Your task to perform on an android device: Open Amazon Image 0: 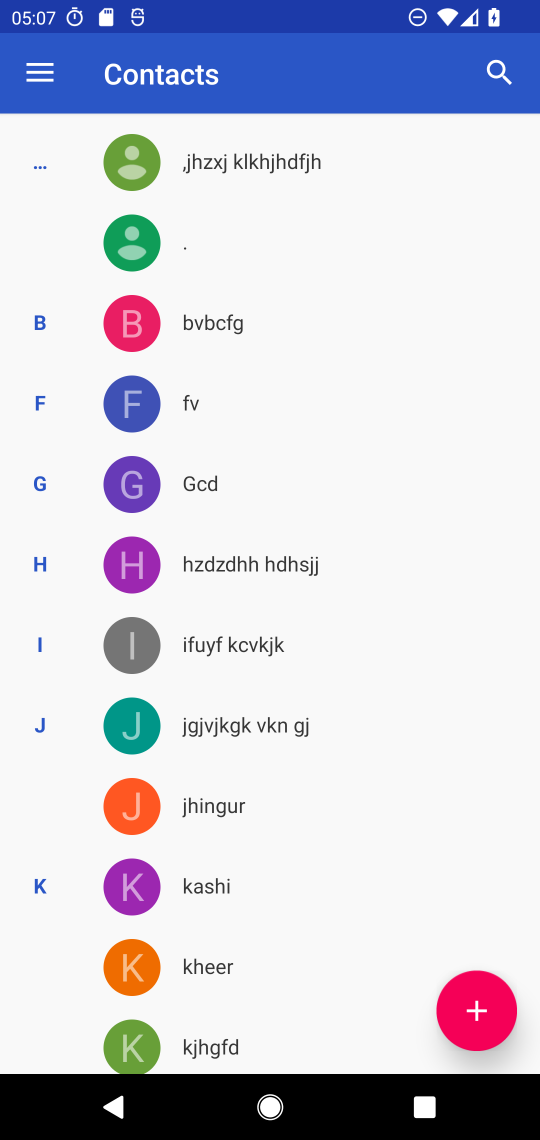
Step 0: press home button
Your task to perform on an android device: Open Amazon Image 1: 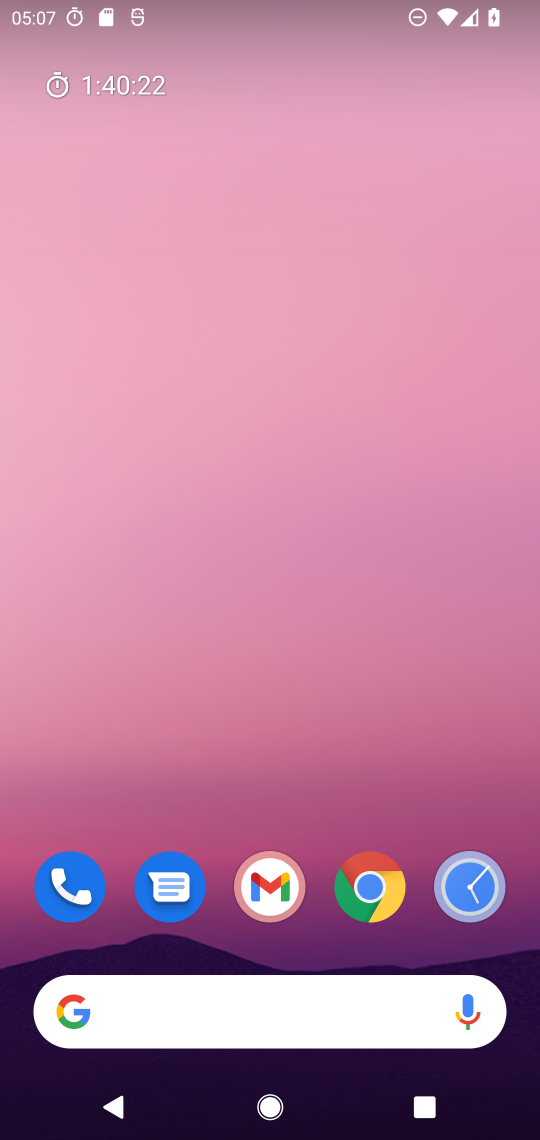
Step 1: drag from (415, 804) to (414, 250)
Your task to perform on an android device: Open Amazon Image 2: 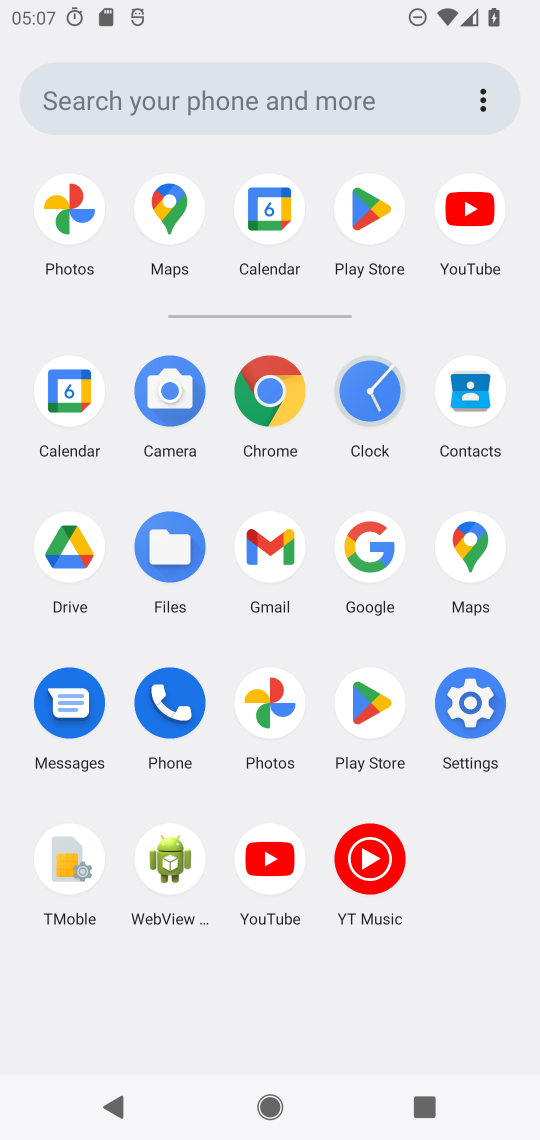
Step 2: click (263, 407)
Your task to perform on an android device: Open Amazon Image 3: 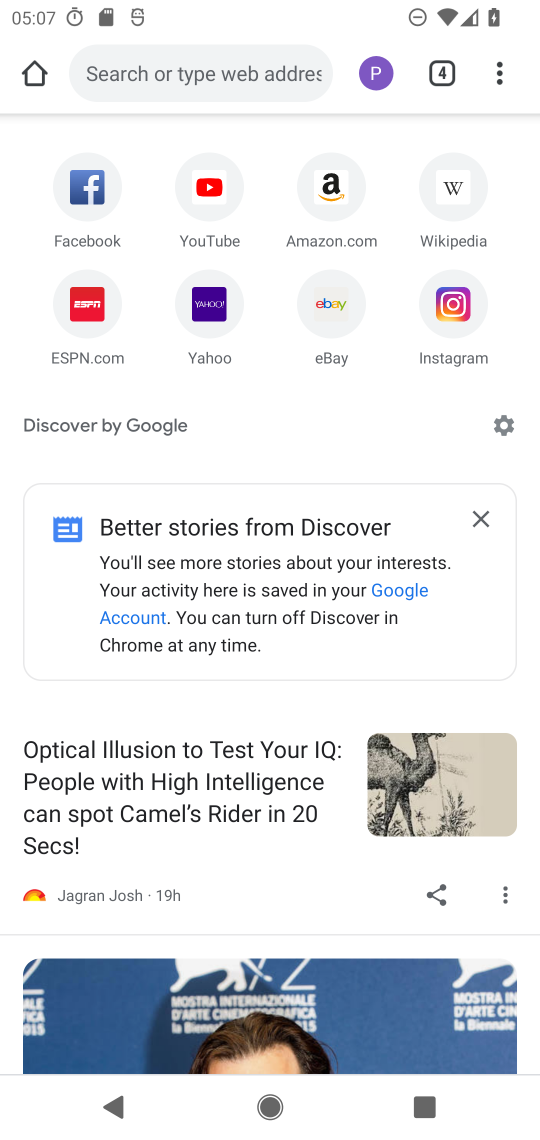
Step 3: click (247, 71)
Your task to perform on an android device: Open Amazon Image 4: 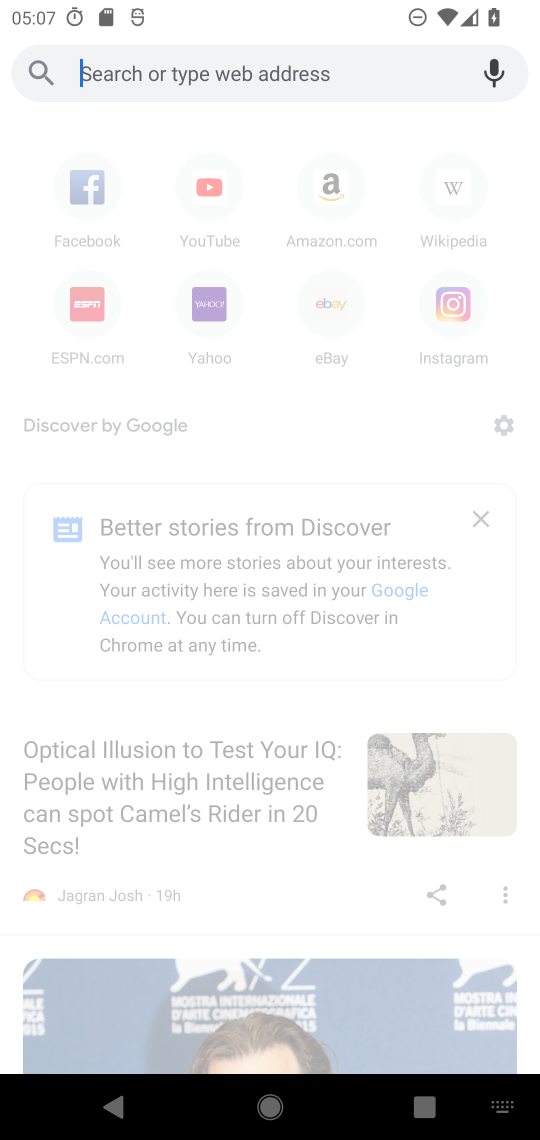
Step 4: type "amazon"
Your task to perform on an android device: Open Amazon Image 5: 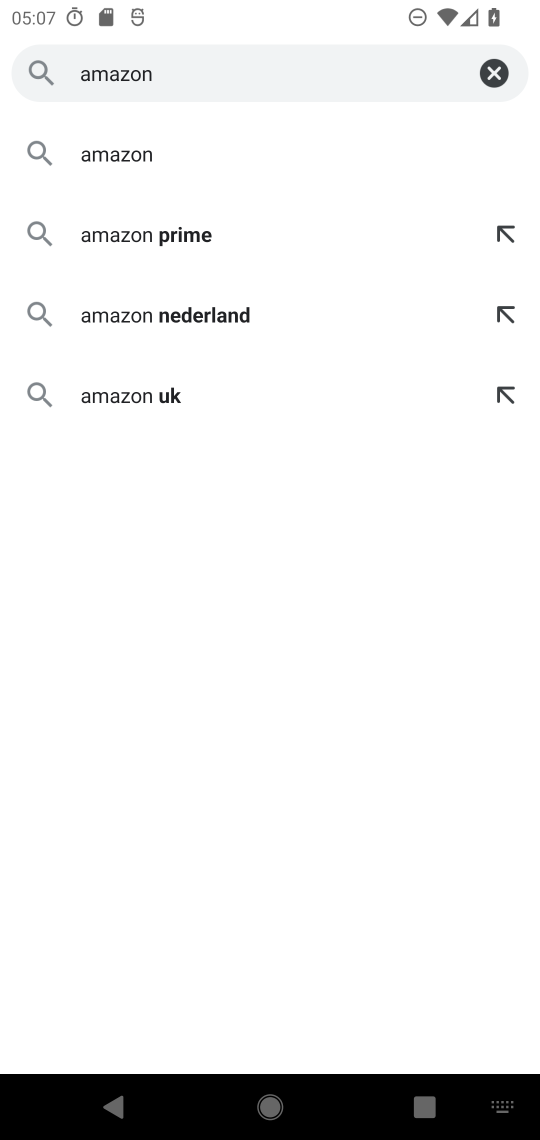
Step 5: click (203, 151)
Your task to perform on an android device: Open Amazon Image 6: 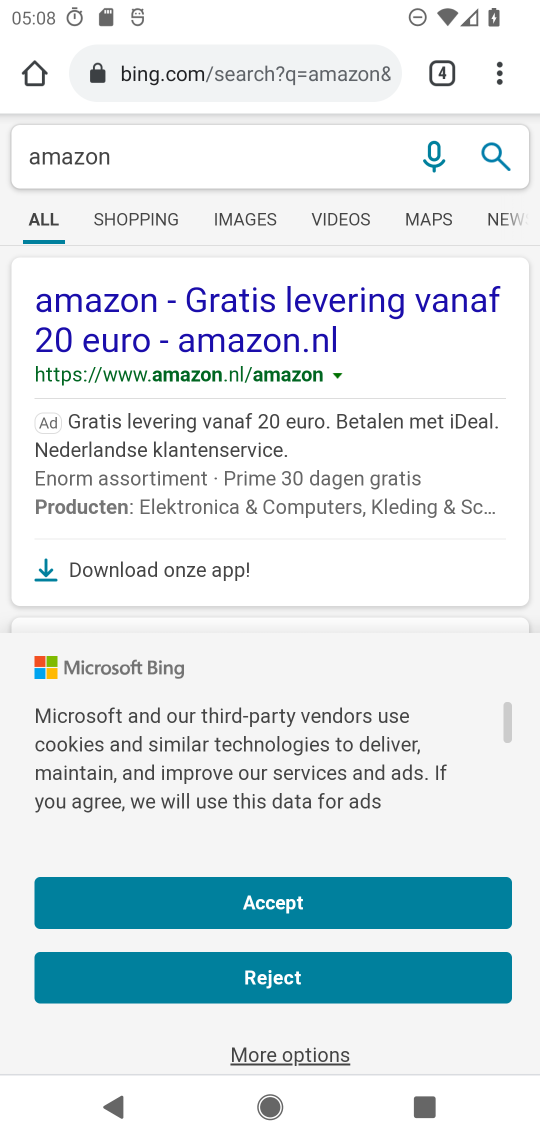
Step 6: task complete